Your task to perform on an android device: What is the capital of Germany? Image 0: 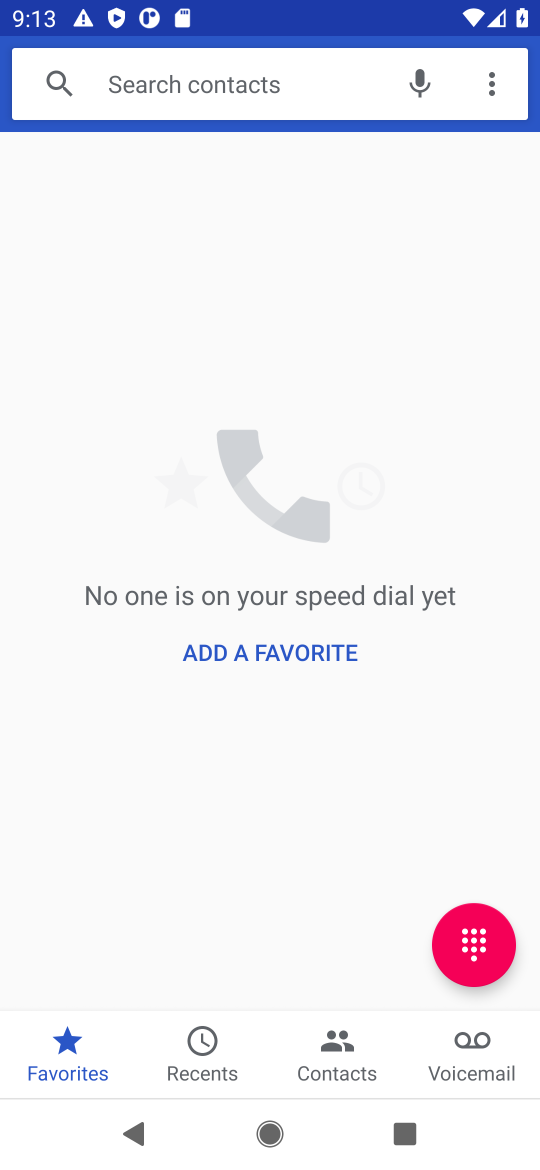
Step 0: press home button
Your task to perform on an android device: What is the capital of Germany? Image 1: 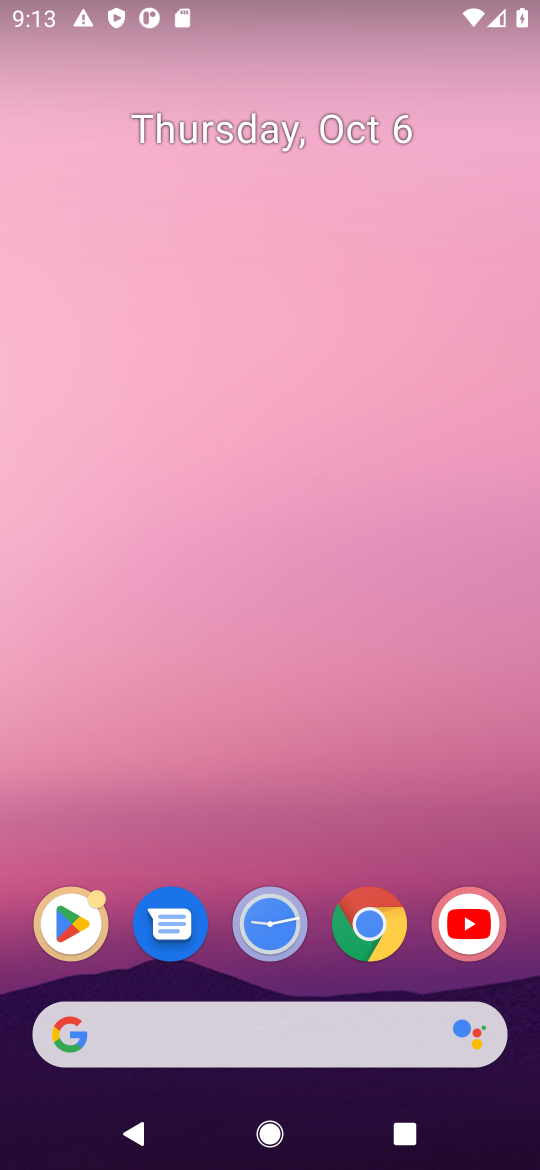
Step 1: click (367, 926)
Your task to perform on an android device: What is the capital of Germany? Image 2: 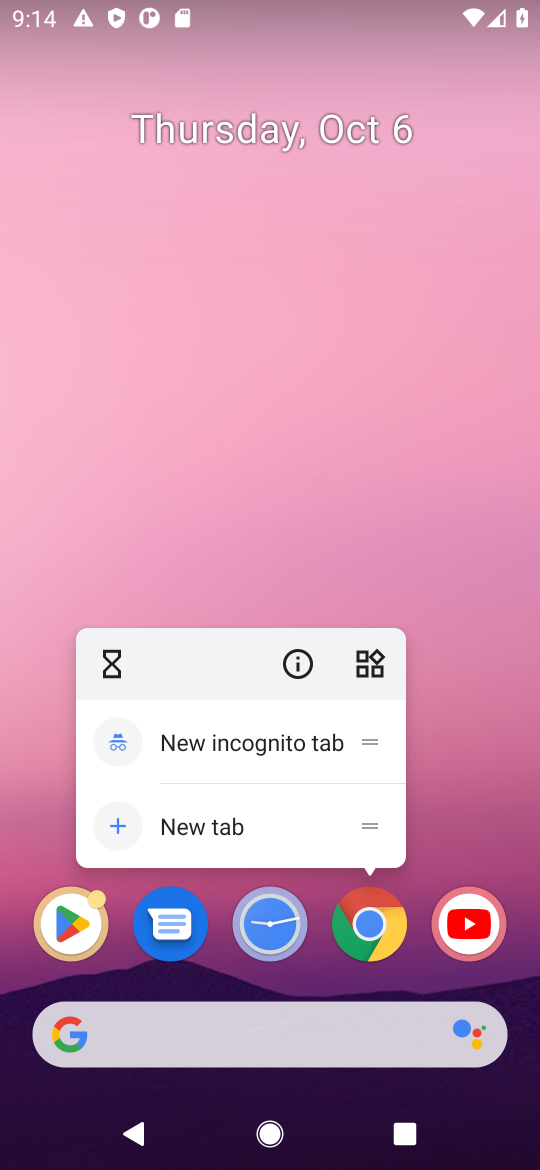
Step 2: click (364, 912)
Your task to perform on an android device: What is the capital of Germany? Image 3: 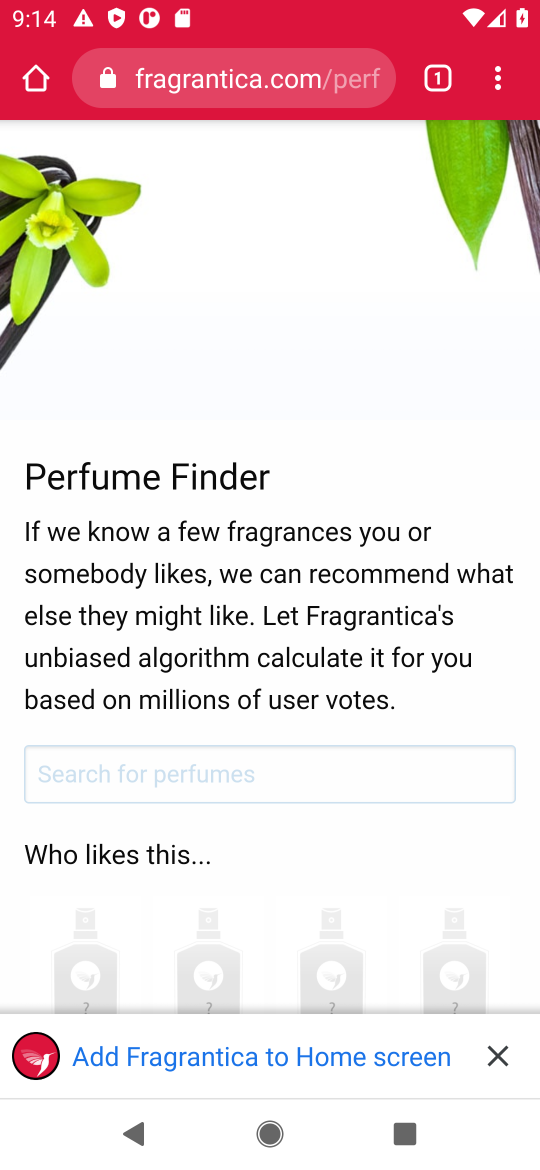
Step 3: click (329, 90)
Your task to perform on an android device: What is the capital of Germany? Image 4: 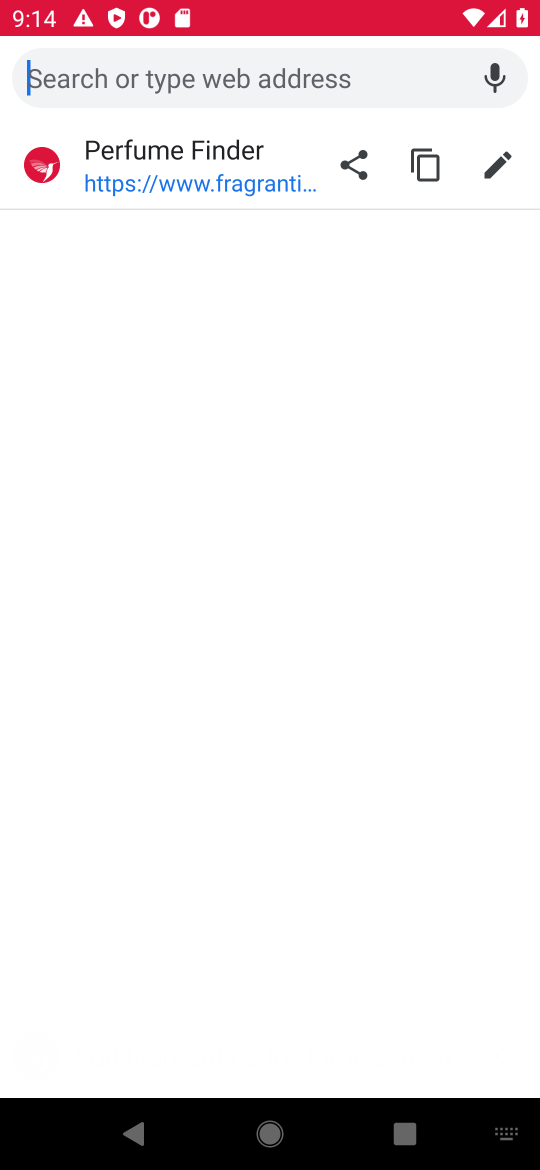
Step 4: type "capital of Germany"
Your task to perform on an android device: What is the capital of Germany? Image 5: 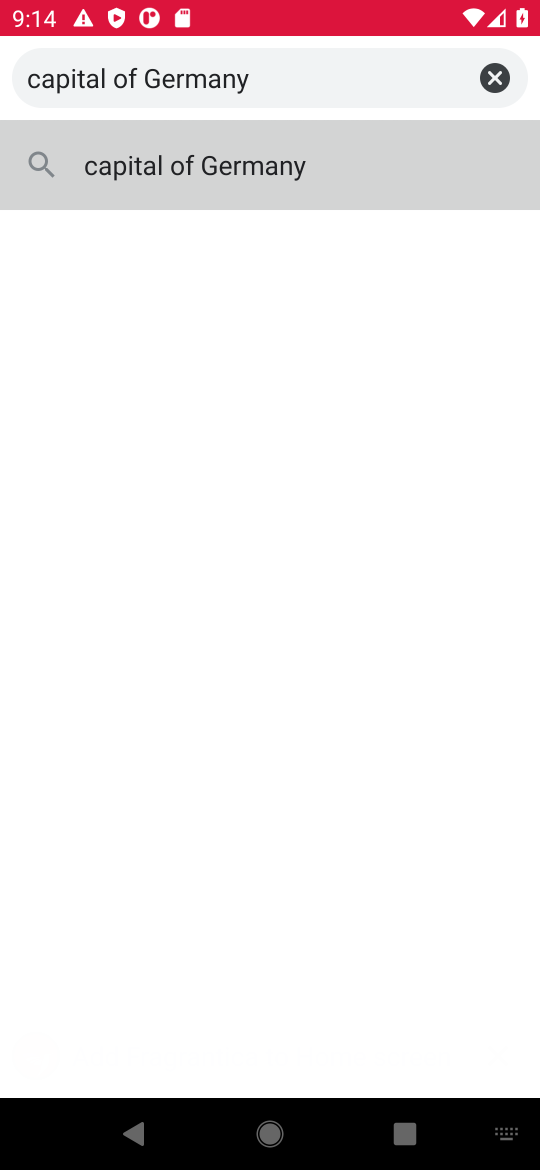
Step 5: click (284, 168)
Your task to perform on an android device: What is the capital of Germany? Image 6: 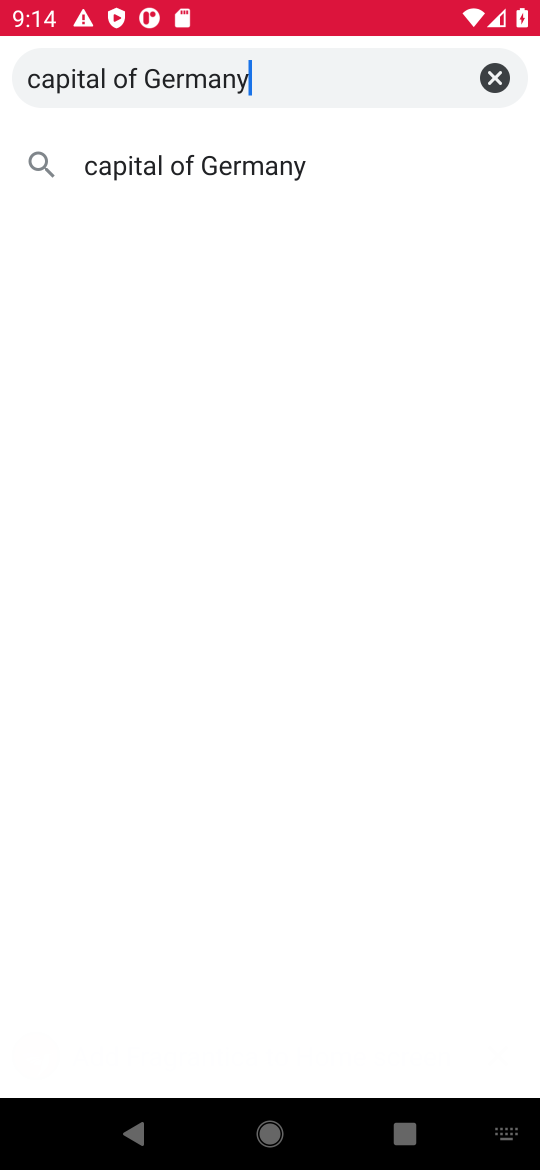
Step 6: click (198, 158)
Your task to perform on an android device: What is the capital of Germany? Image 7: 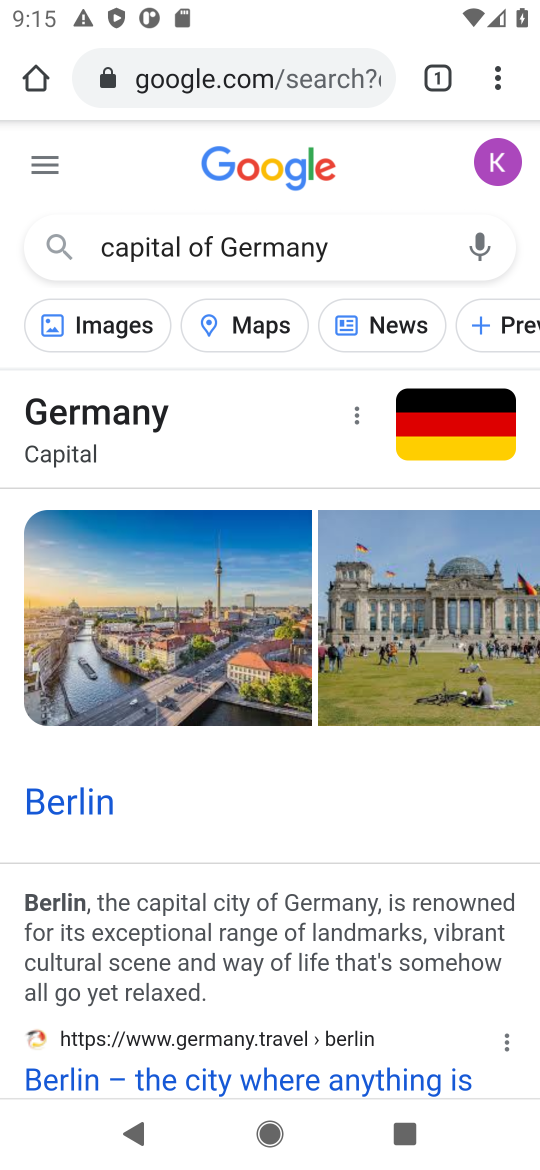
Step 7: task complete